Your task to perform on an android device: Open ESPN.com Image 0: 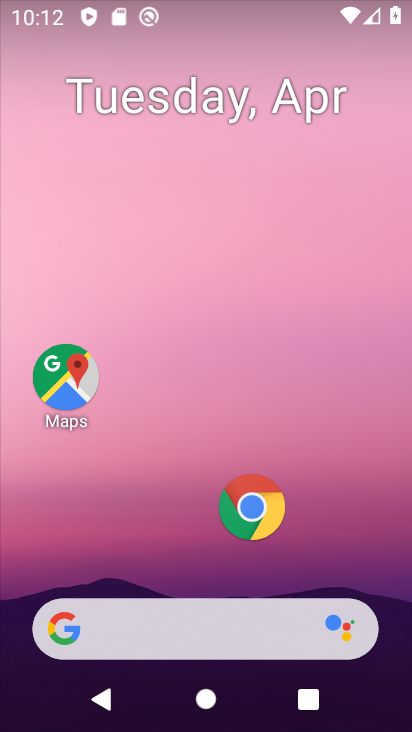
Step 0: click (262, 502)
Your task to perform on an android device: Open ESPN.com Image 1: 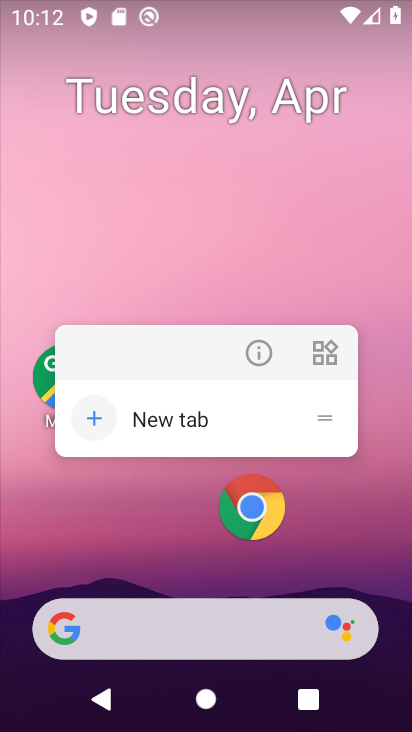
Step 1: click (268, 495)
Your task to perform on an android device: Open ESPN.com Image 2: 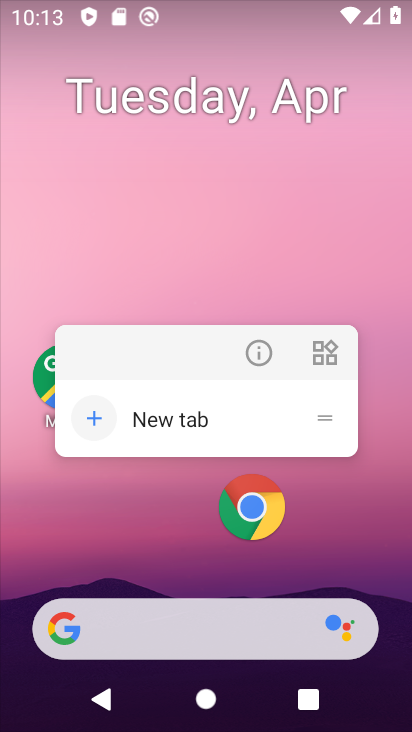
Step 2: click (255, 515)
Your task to perform on an android device: Open ESPN.com Image 3: 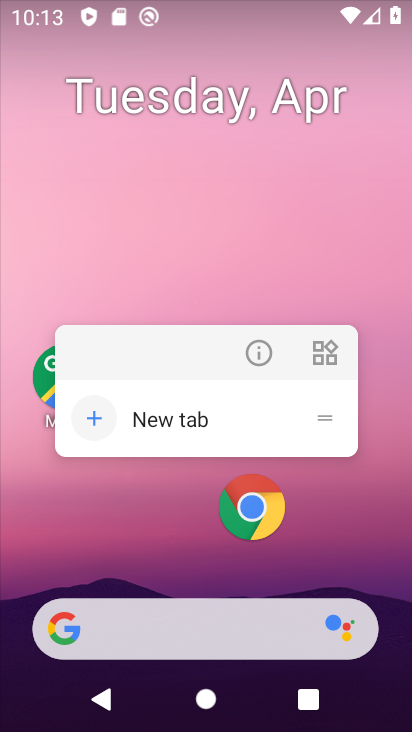
Step 3: click (241, 512)
Your task to perform on an android device: Open ESPN.com Image 4: 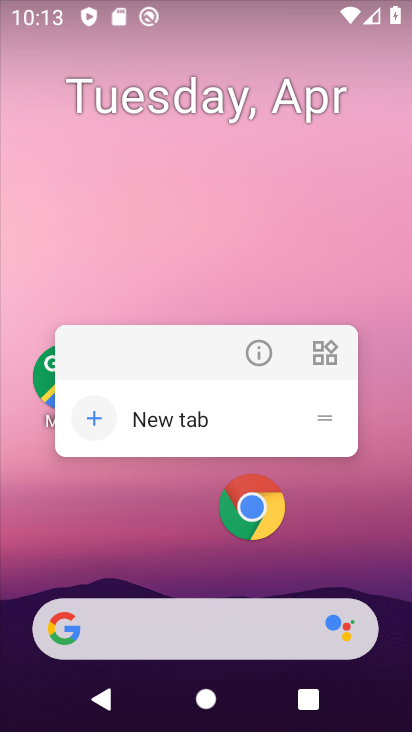
Step 4: click (246, 504)
Your task to perform on an android device: Open ESPN.com Image 5: 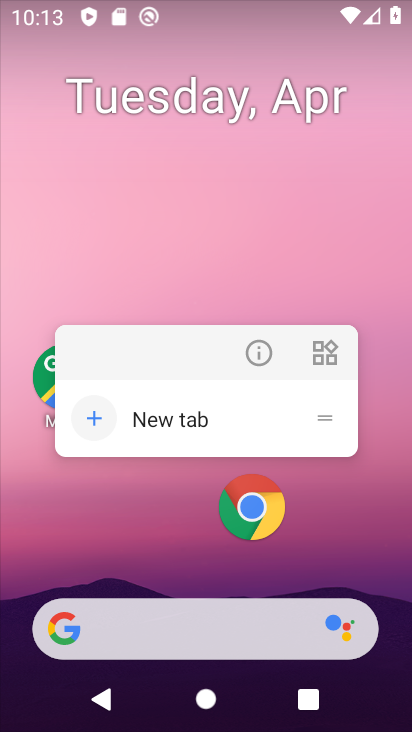
Step 5: click (246, 501)
Your task to perform on an android device: Open ESPN.com Image 6: 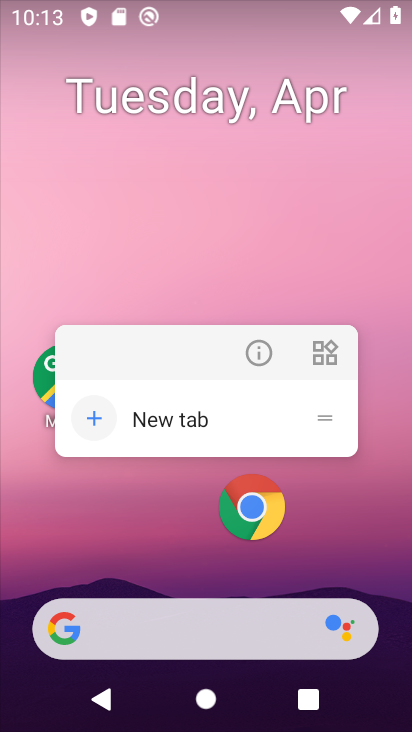
Step 6: click (245, 499)
Your task to perform on an android device: Open ESPN.com Image 7: 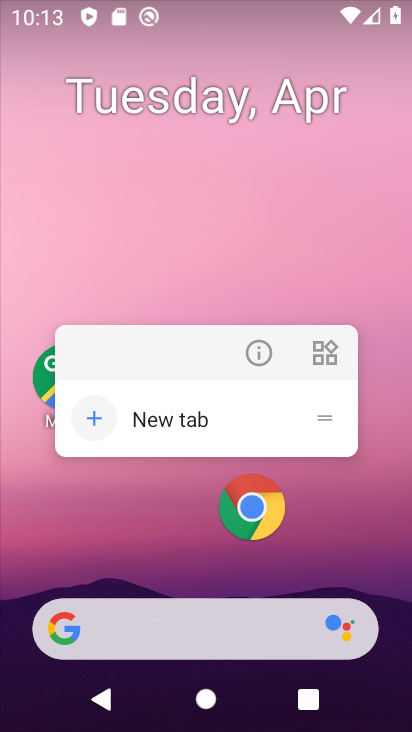
Step 7: click (245, 499)
Your task to perform on an android device: Open ESPN.com Image 8: 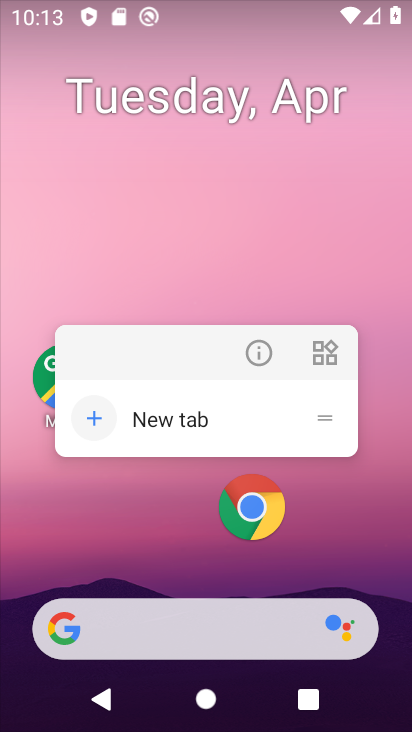
Step 8: click (245, 499)
Your task to perform on an android device: Open ESPN.com Image 9: 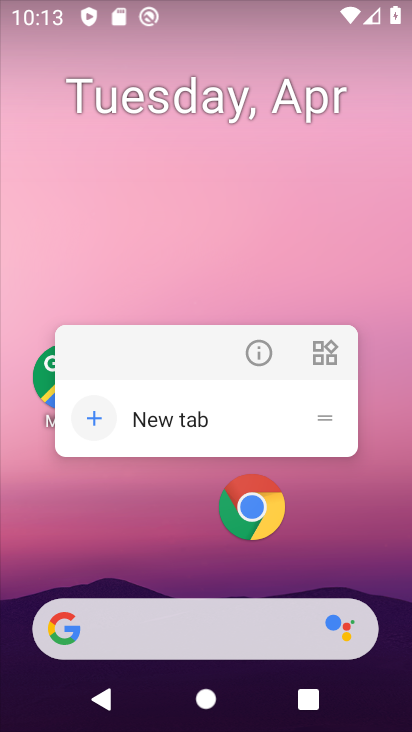
Step 9: click (180, 422)
Your task to perform on an android device: Open ESPN.com Image 10: 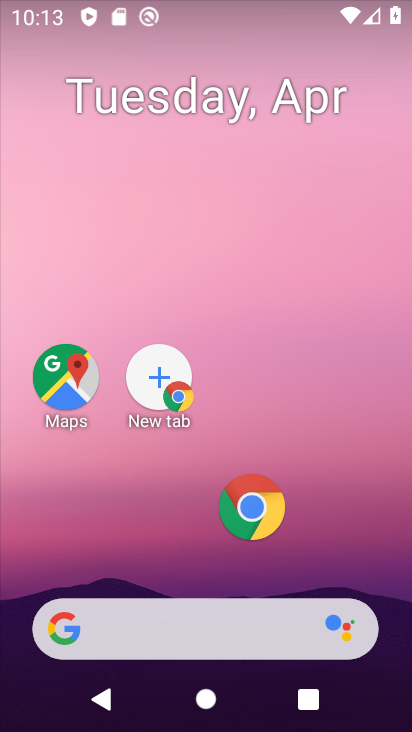
Step 10: click (190, 383)
Your task to perform on an android device: Open ESPN.com Image 11: 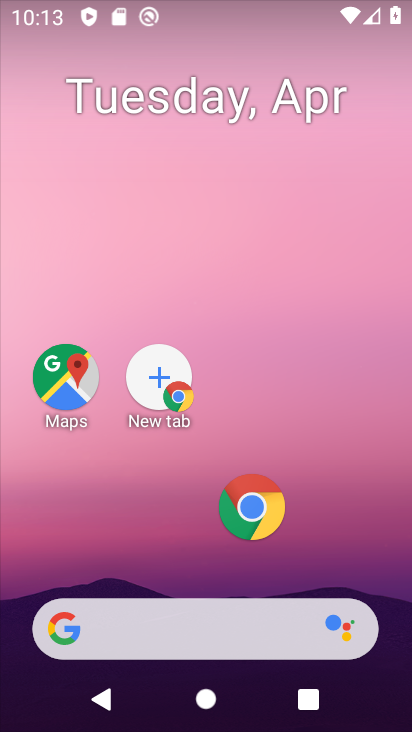
Step 11: click (251, 509)
Your task to perform on an android device: Open ESPN.com Image 12: 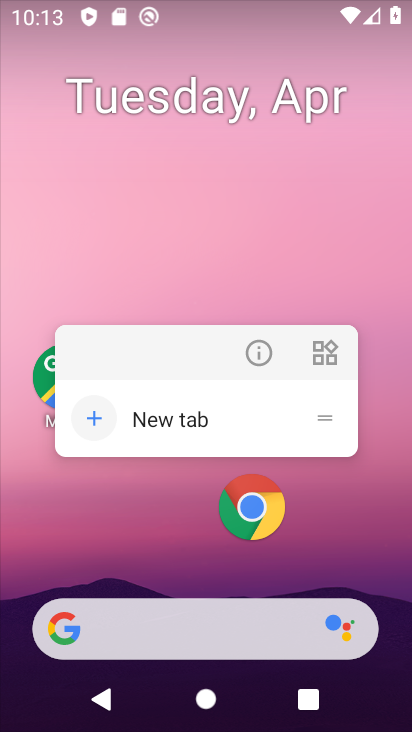
Step 12: click (261, 501)
Your task to perform on an android device: Open ESPN.com Image 13: 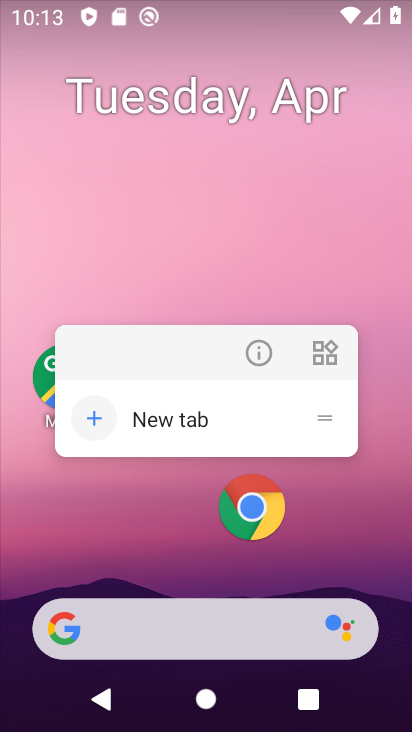
Step 13: click (262, 500)
Your task to perform on an android device: Open ESPN.com Image 14: 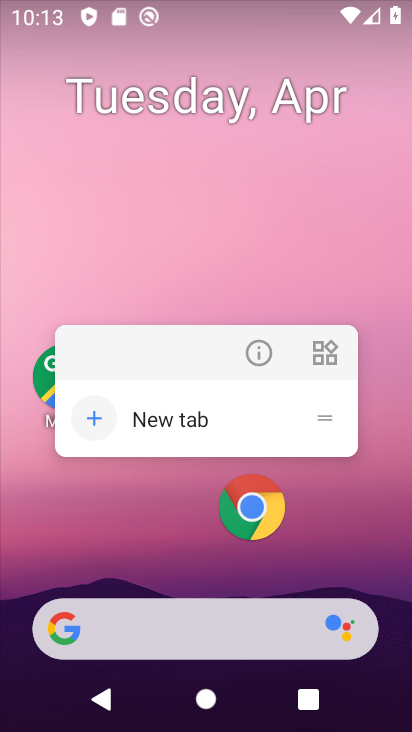
Step 14: click (264, 497)
Your task to perform on an android device: Open ESPN.com Image 15: 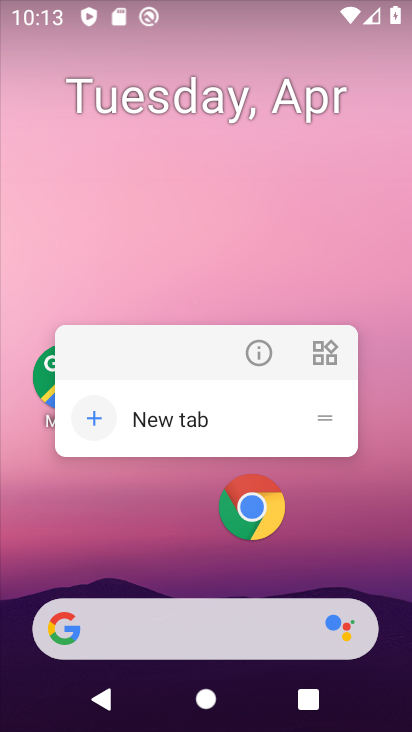
Step 15: click (262, 497)
Your task to perform on an android device: Open ESPN.com Image 16: 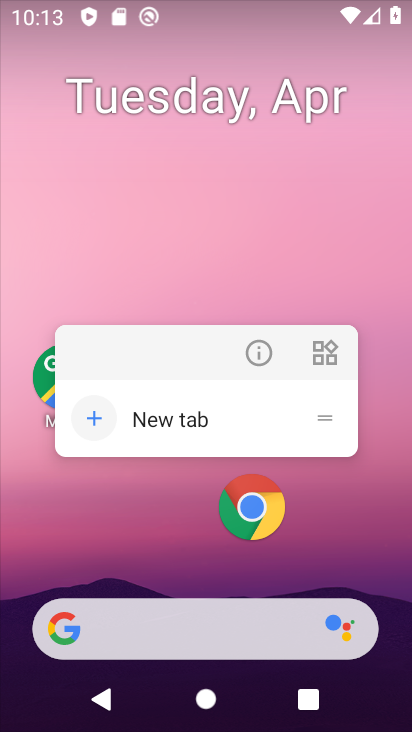
Step 16: click (229, 495)
Your task to perform on an android device: Open ESPN.com Image 17: 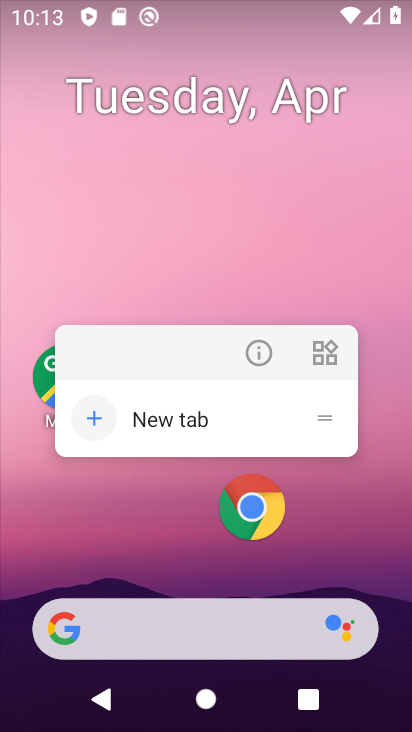
Step 17: click (230, 494)
Your task to perform on an android device: Open ESPN.com Image 18: 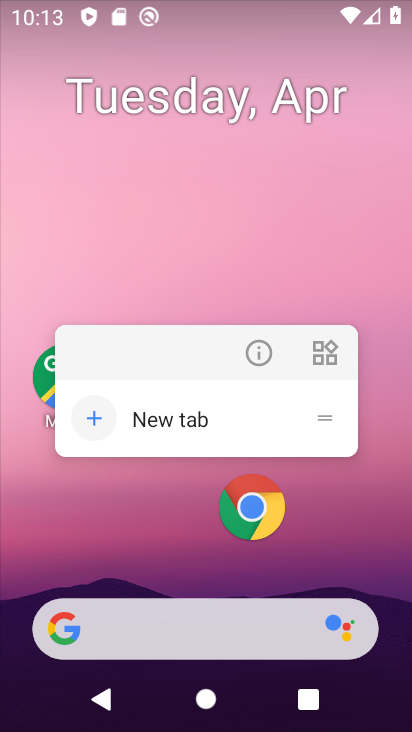
Step 18: click (94, 227)
Your task to perform on an android device: Open ESPN.com Image 19: 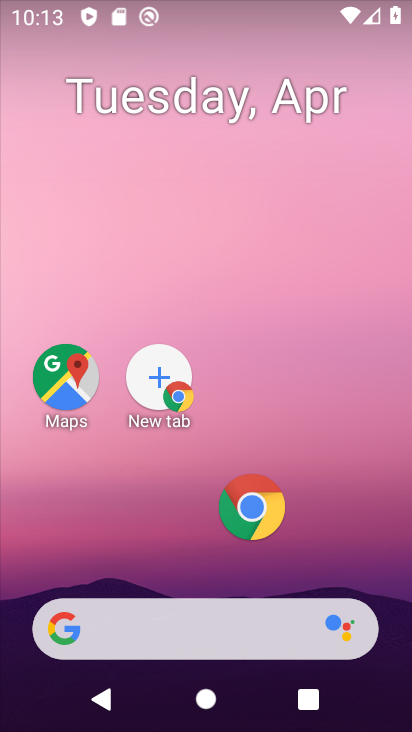
Step 19: drag from (164, 403) to (285, 103)
Your task to perform on an android device: Open ESPN.com Image 20: 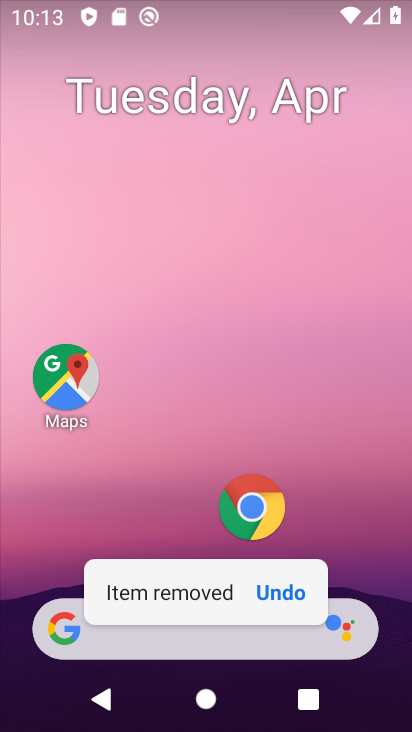
Step 20: drag from (55, 521) to (243, 83)
Your task to perform on an android device: Open ESPN.com Image 21: 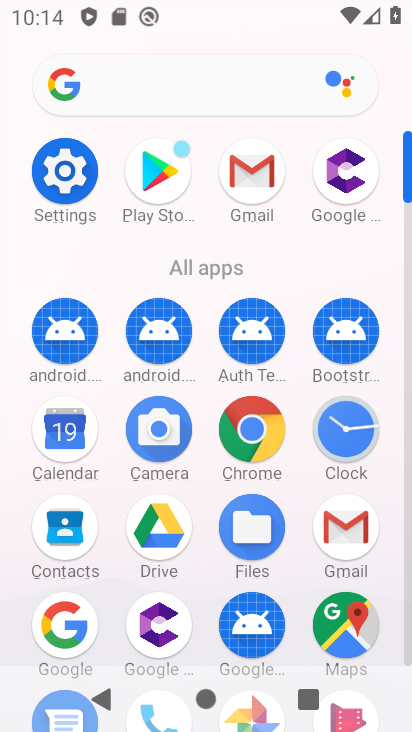
Step 21: click (258, 436)
Your task to perform on an android device: Open ESPN.com Image 22: 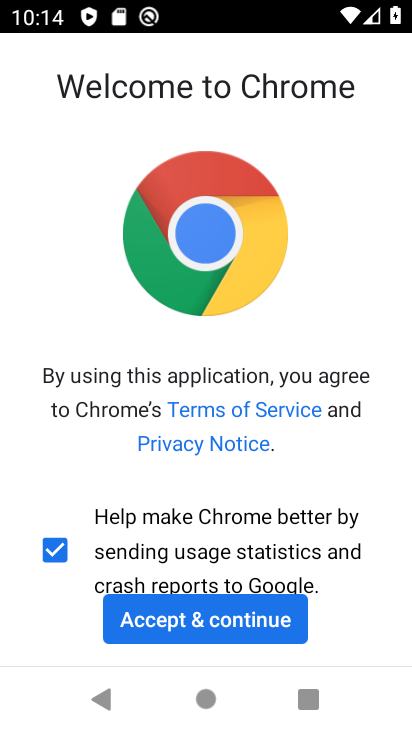
Step 22: click (206, 608)
Your task to perform on an android device: Open ESPN.com Image 23: 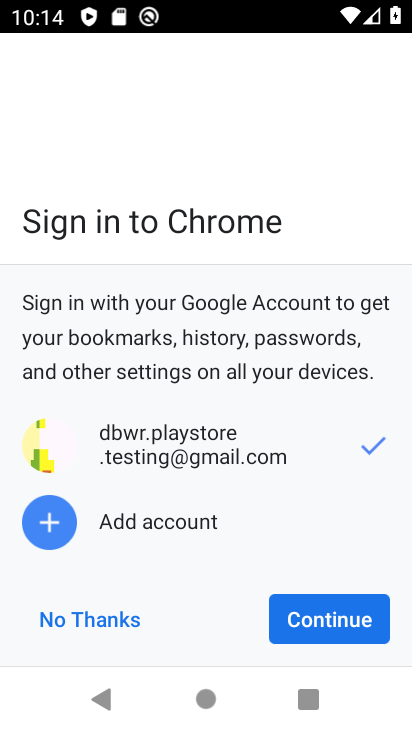
Step 23: click (272, 620)
Your task to perform on an android device: Open ESPN.com Image 24: 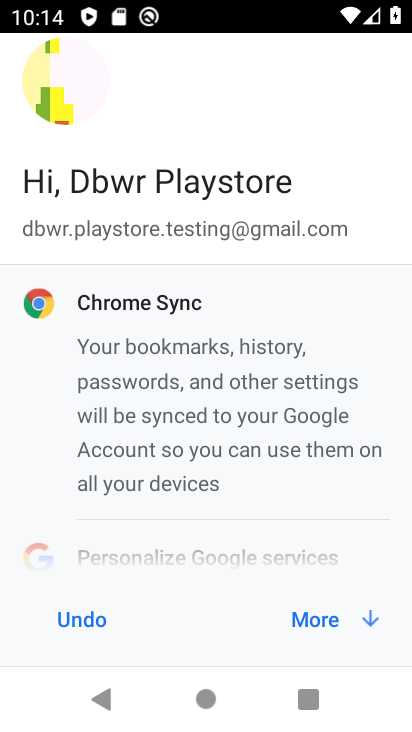
Step 24: click (81, 627)
Your task to perform on an android device: Open ESPN.com Image 25: 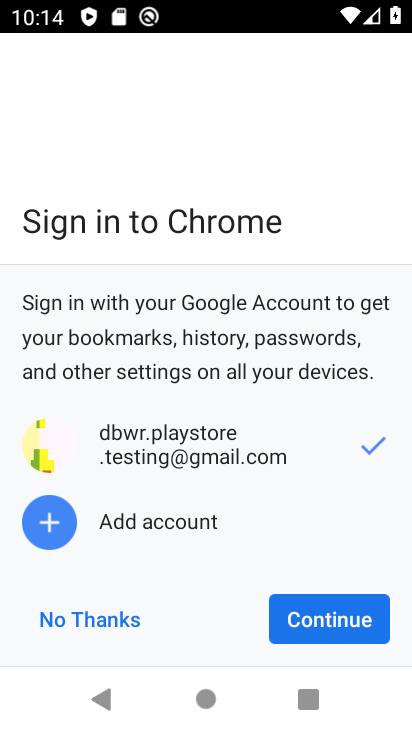
Step 25: click (81, 629)
Your task to perform on an android device: Open ESPN.com Image 26: 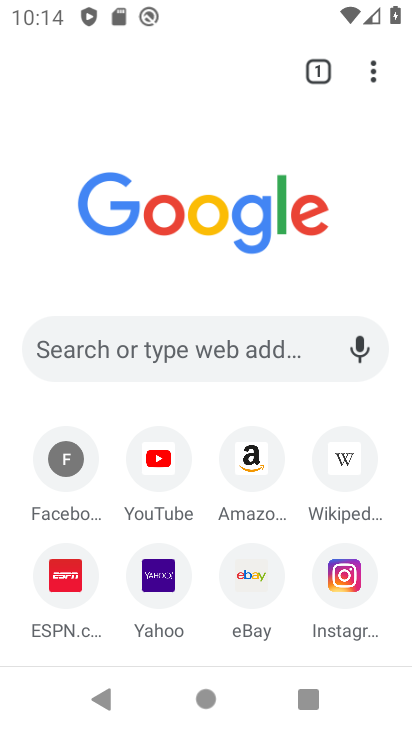
Step 26: click (47, 595)
Your task to perform on an android device: Open ESPN.com Image 27: 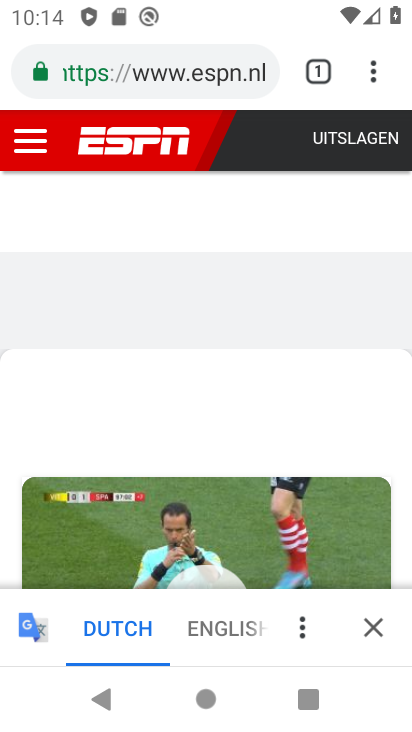
Step 27: task complete